Your task to perform on an android device: open chrome privacy settings Image 0: 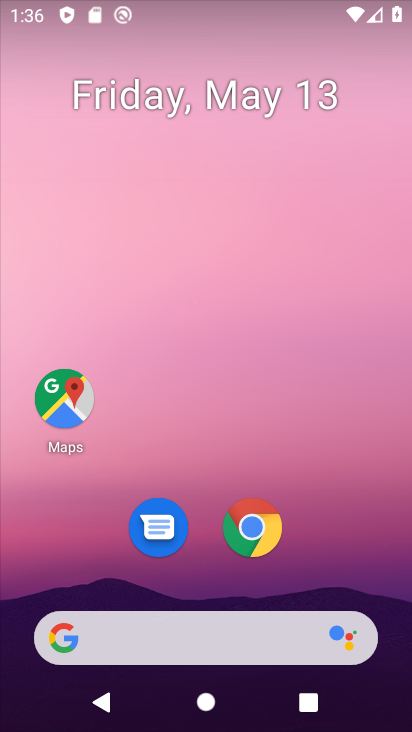
Step 0: click (254, 532)
Your task to perform on an android device: open chrome privacy settings Image 1: 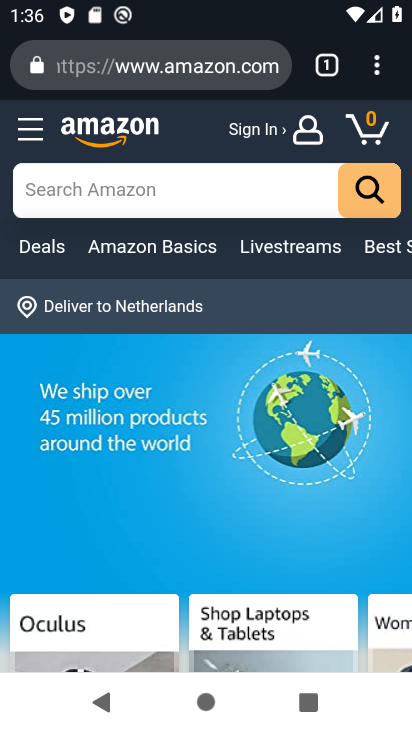
Step 1: click (386, 57)
Your task to perform on an android device: open chrome privacy settings Image 2: 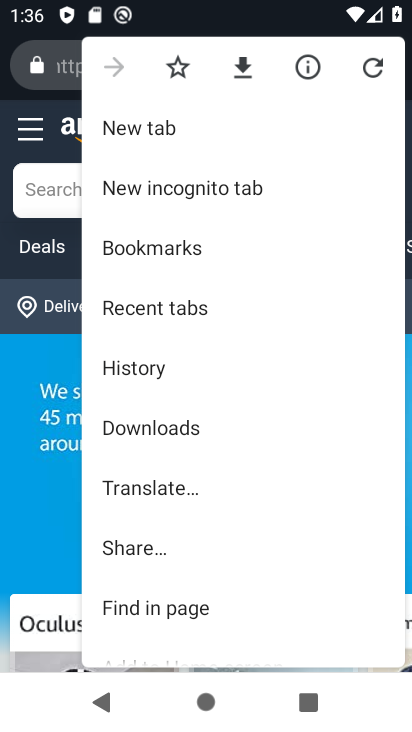
Step 2: drag from (179, 555) to (334, 15)
Your task to perform on an android device: open chrome privacy settings Image 3: 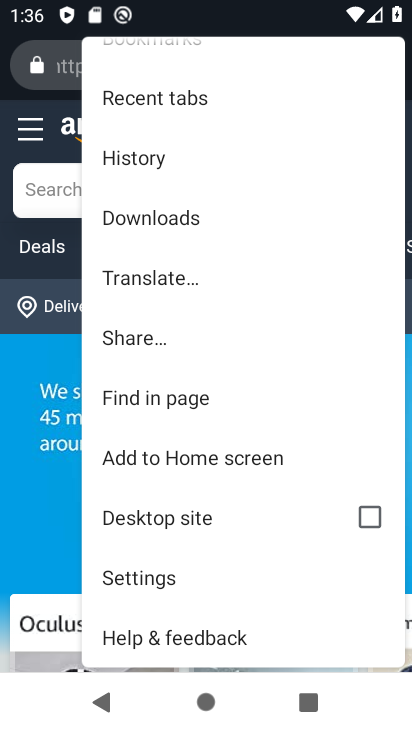
Step 3: click (163, 597)
Your task to perform on an android device: open chrome privacy settings Image 4: 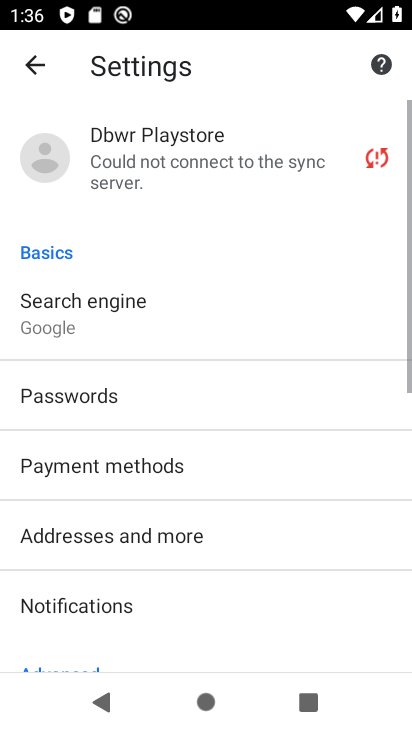
Step 4: drag from (145, 582) to (321, 62)
Your task to perform on an android device: open chrome privacy settings Image 5: 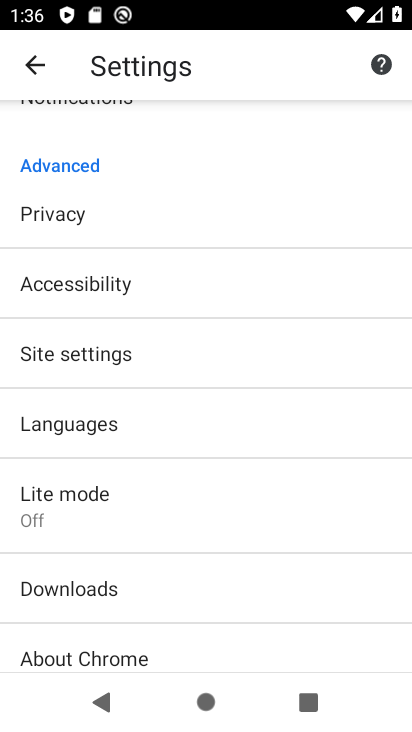
Step 5: drag from (70, 632) to (152, 239)
Your task to perform on an android device: open chrome privacy settings Image 6: 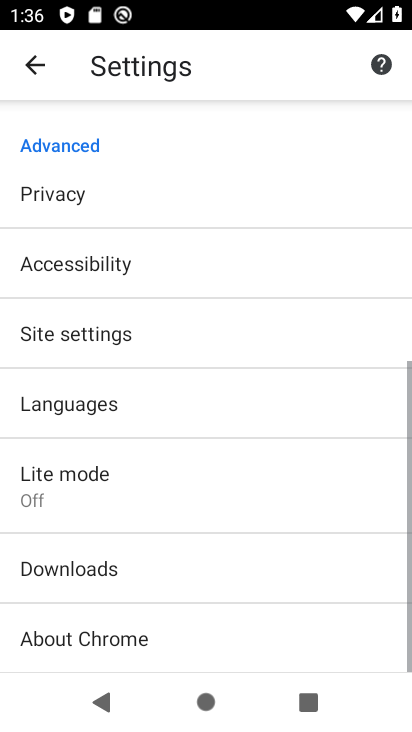
Step 6: click (143, 206)
Your task to perform on an android device: open chrome privacy settings Image 7: 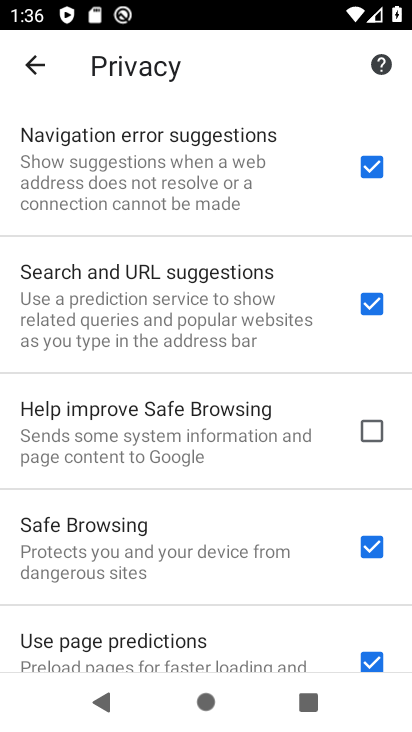
Step 7: task complete